Your task to perform on an android device: install app "Facebook" Image 0: 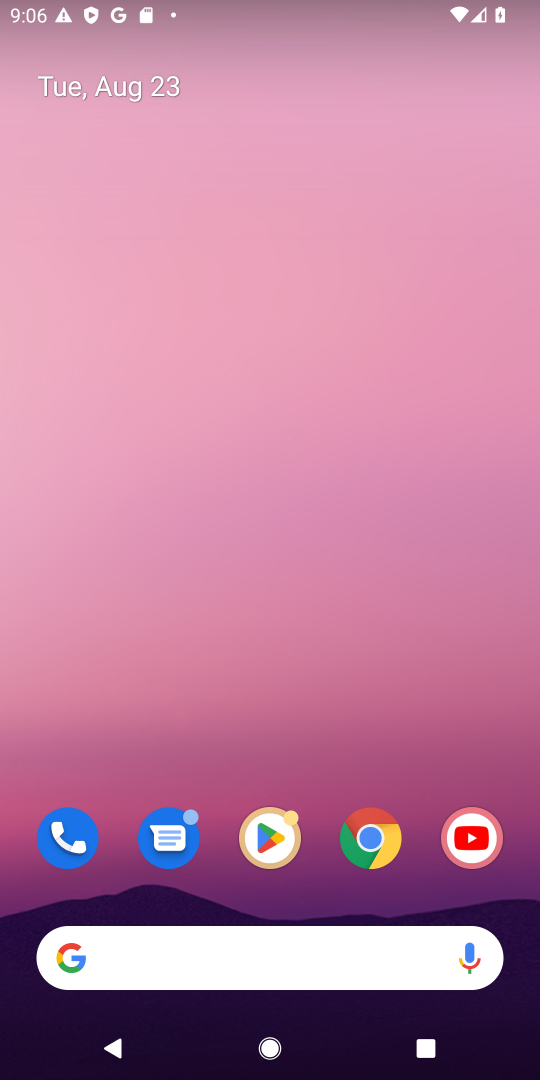
Step 0: click (284, 852)
Your task to perform on an android device: install app "Facebook" Image 1: 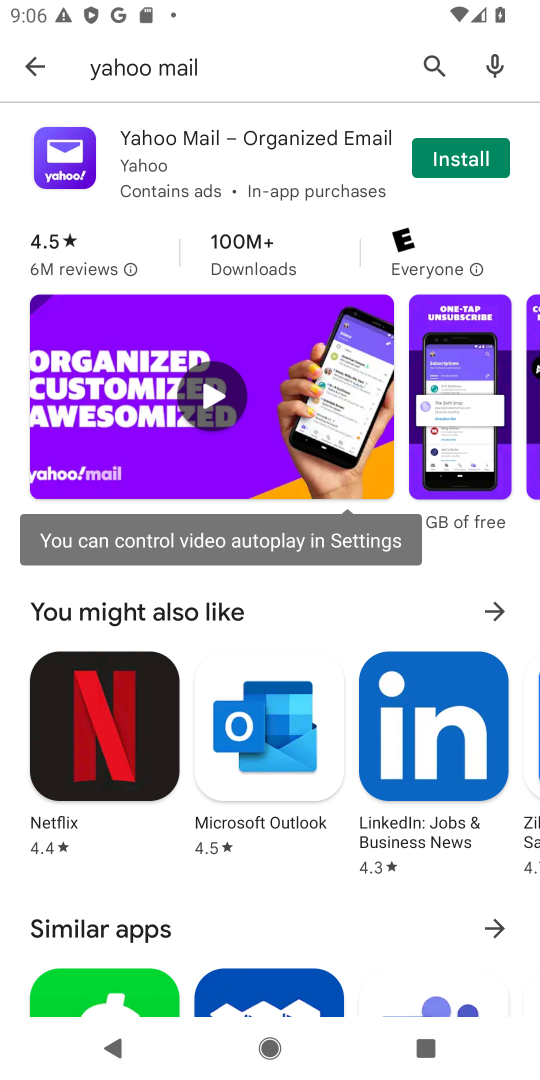
Step 1: click (432, 61)
Your task to perform on an android device: install app "Facebook" Image 2: 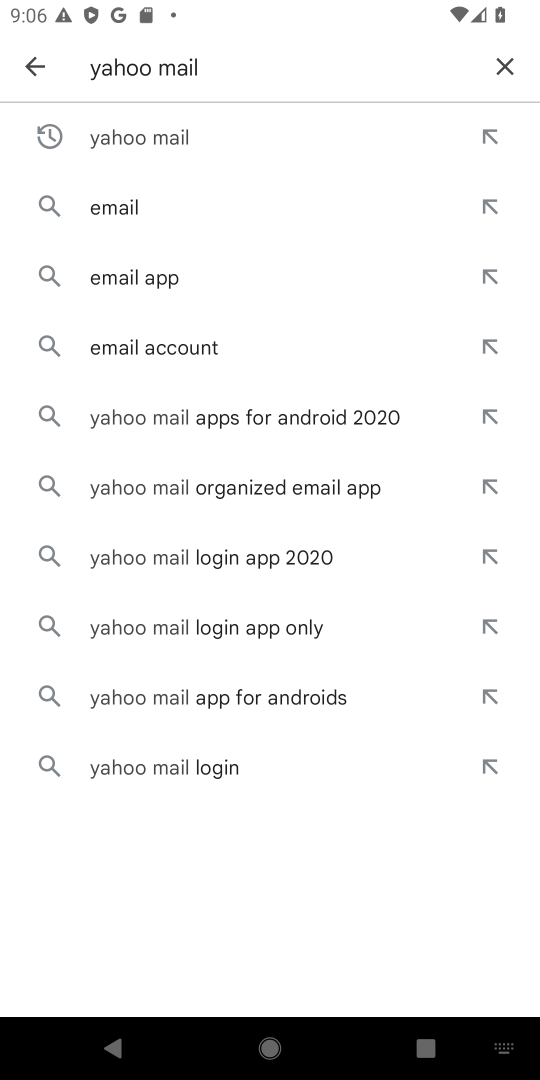
Step 2: click (502, 62)
Your task to perform on an android device: install app "Facebook" Image 3: 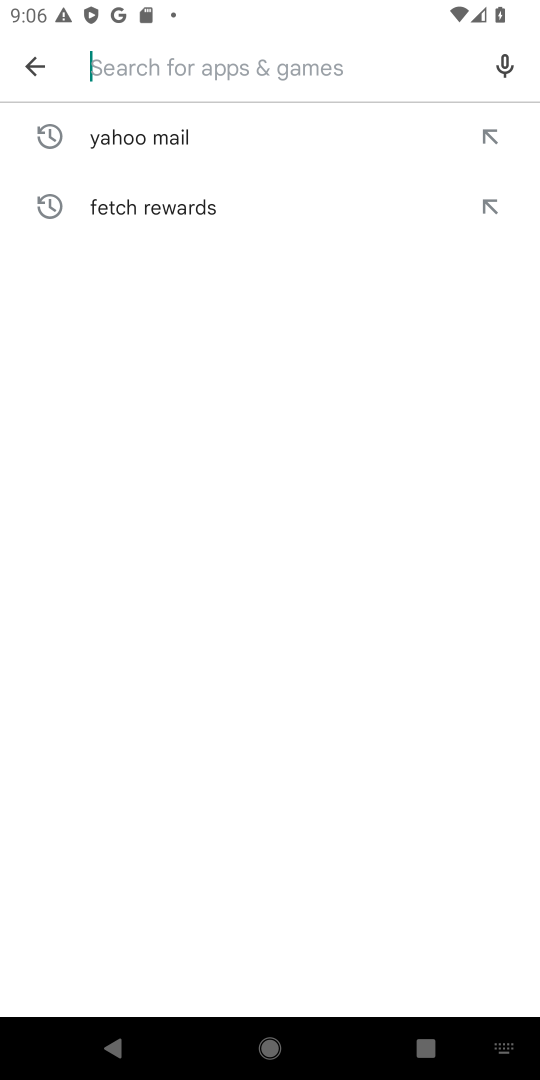
Step 3: type "Facebook"
Your task to perform on an android device: install app "Facebook" Image 4: 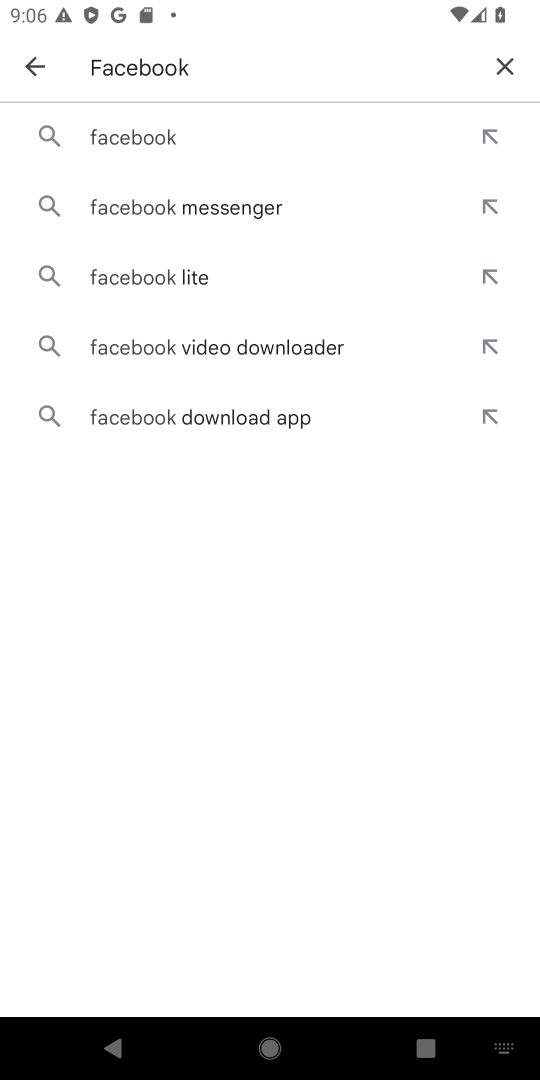
Step 4: click (145, 131)
Your task to perform on an android device: install app "Facebook" Image 5: 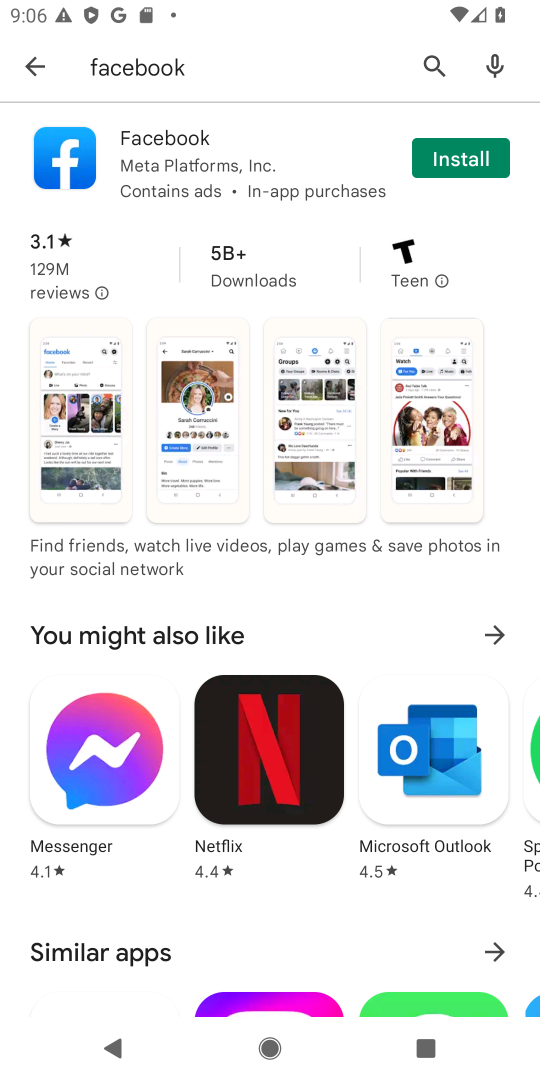
Step 5: click (447, 146)
Your task to perform on an android device: install app "Facebook" Image 6: 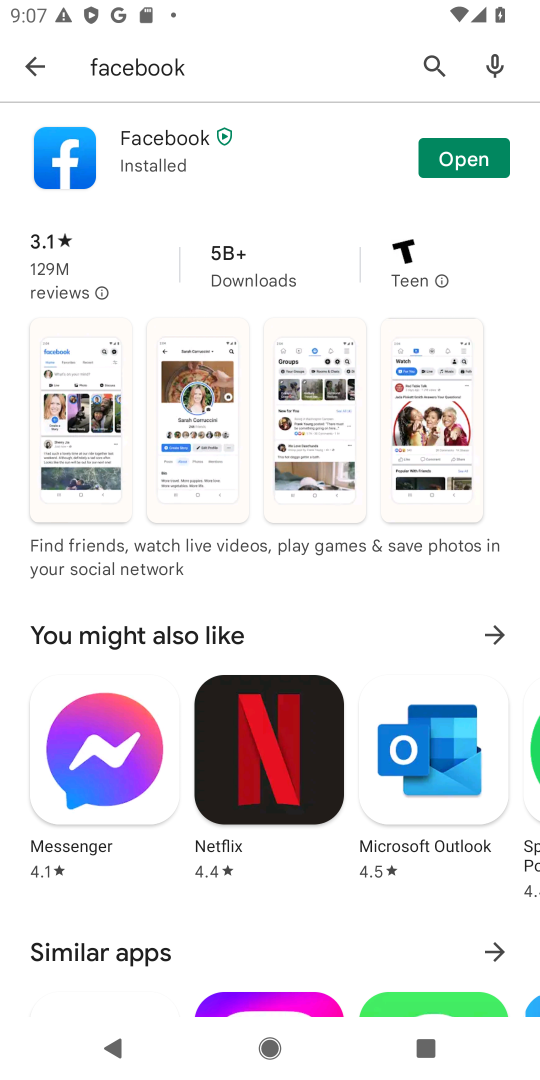
Step 6: task complete